Your task to perform on an android device: Open location settings Image 0: 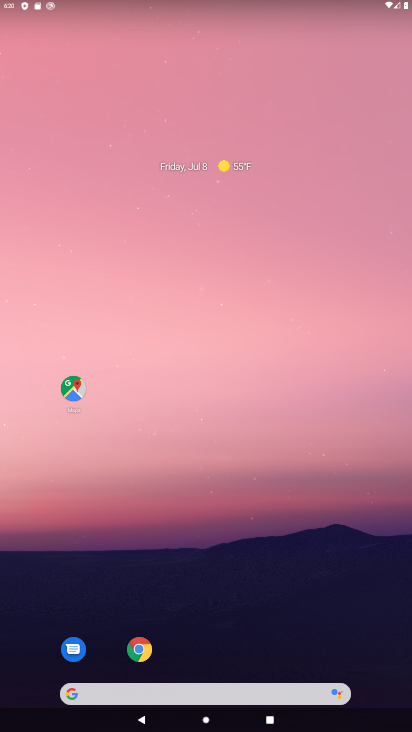
Step 0: press home button
Your task to perform on an android device: Open location settings Image 1: 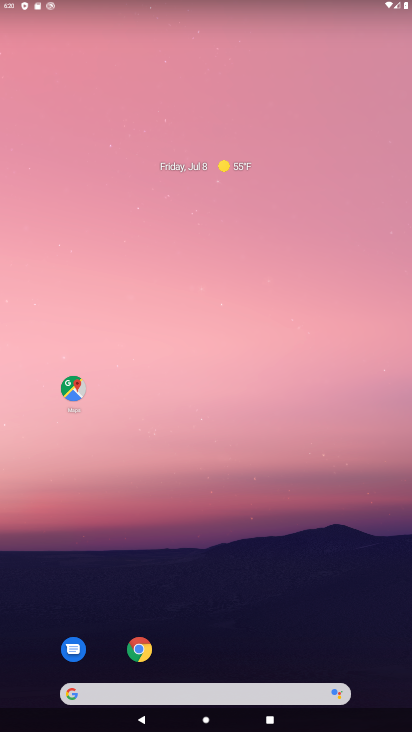
Step 1: drag from (266, 617) to (366, 16)
Your task to perform on an android device: Open location settings Image 2: 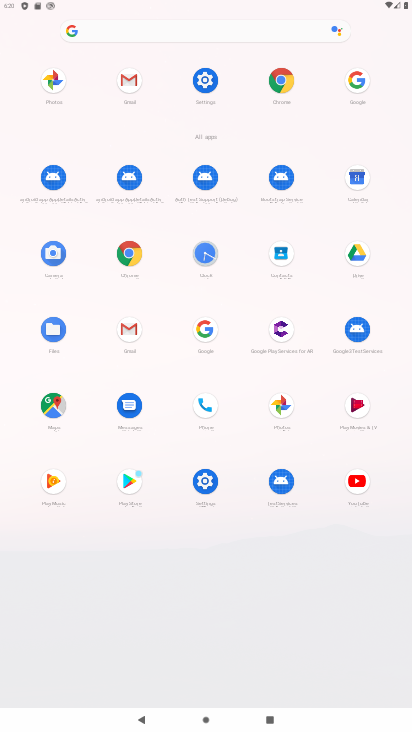
Step 2: click (210, 146)
Your task to perform on an android device: Open location settings Image 3: 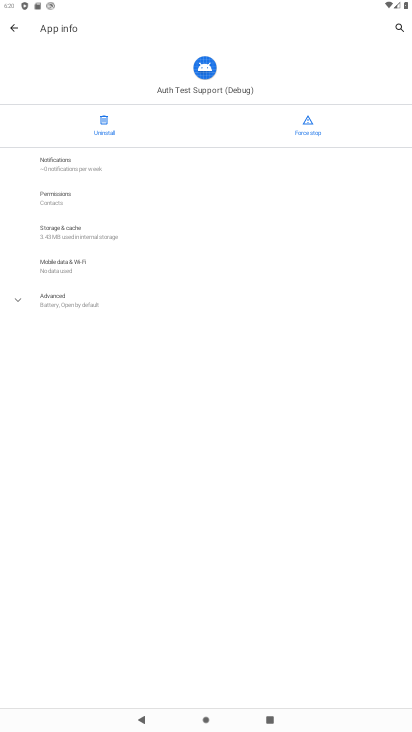
Step 3: press back button
Your task to perform on an android device: Open location settings Image 4: 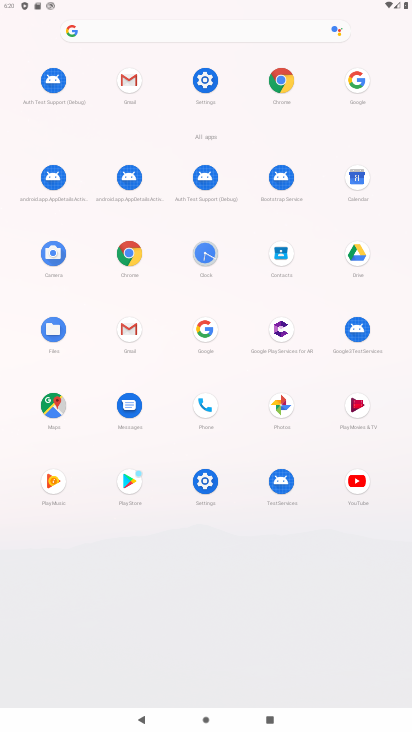
Step 4: click (205, 73)
Your task to perform on an android device: Open location settings Image 5: 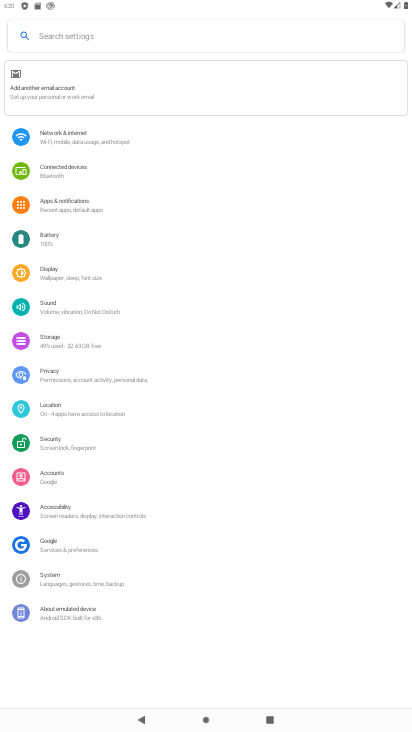
Step 5: click (82, 409)
Your task to perform on an android device: Open location settings Image 6: 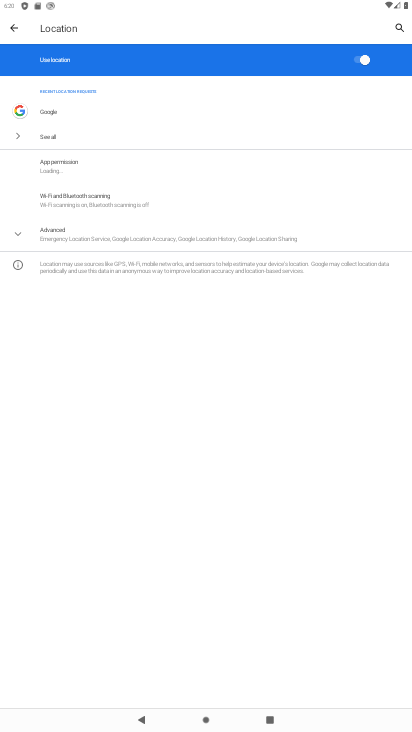
Step 6: click (100, 237)
Your task to perform on an android device: Open location settings Image 7: 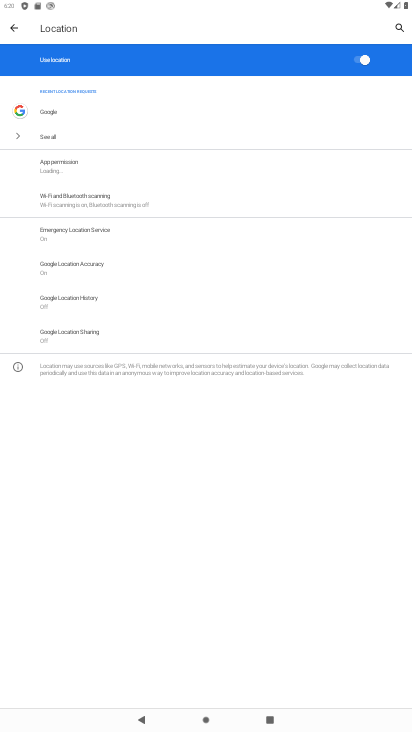
Step 7: task complete